Your task to perform on an android device: Is it going to rain today? Image 0: 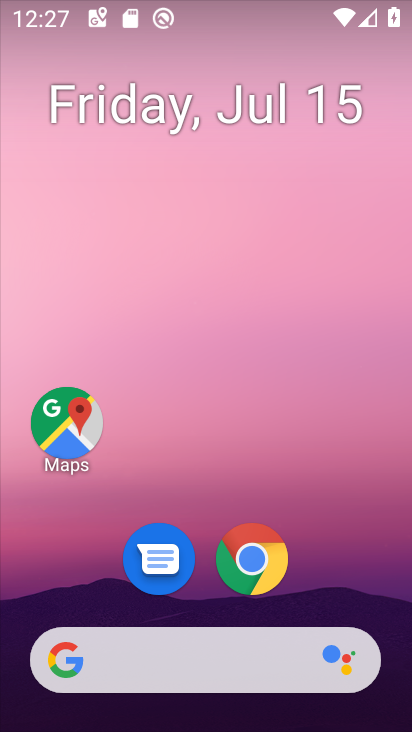
Step 0: click (238, 664)
Your task to perform on an android device: Is it going to rain today? Image 1: 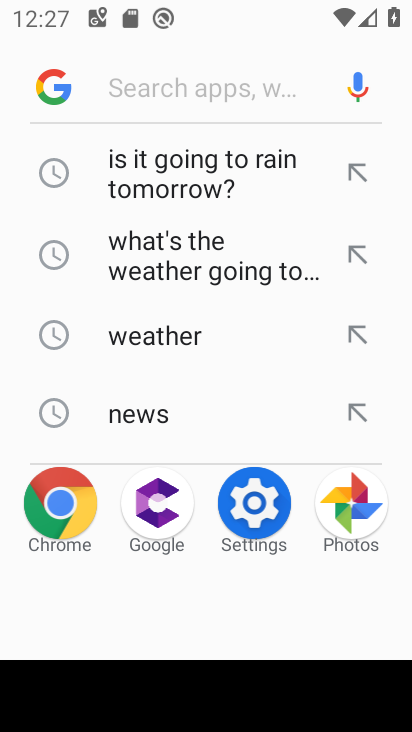
Step 1: type "weather"
Your task to perform on an android device: Is it going to rain today? Image 2: 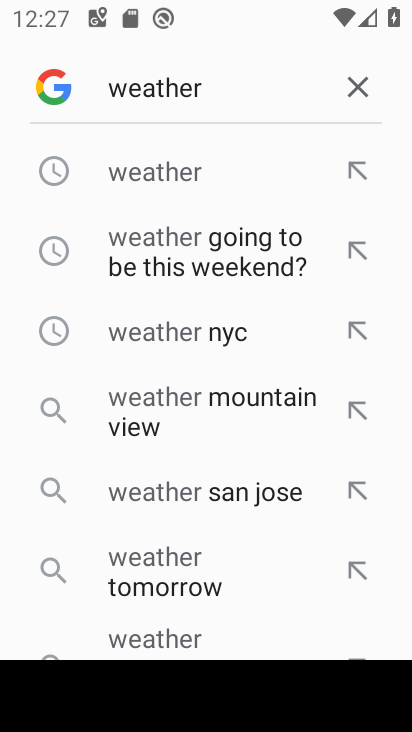
Step 2: click (272, 188)
Your task to perform on an android device: Is it going to rain today? Image 3: 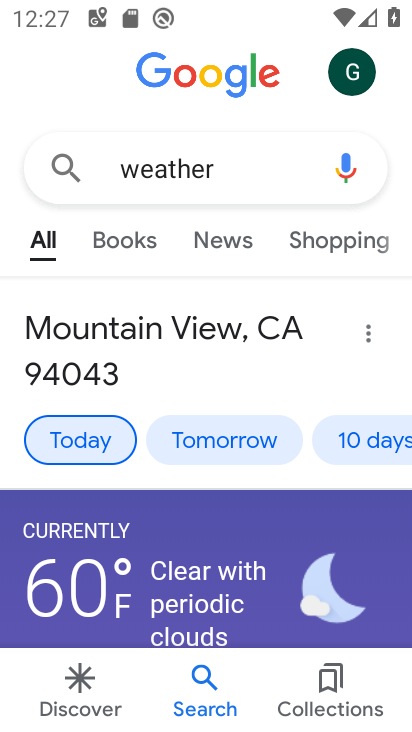
Step 3: task complete